Your task to perform on an android device: What's the weather today? Image 0: 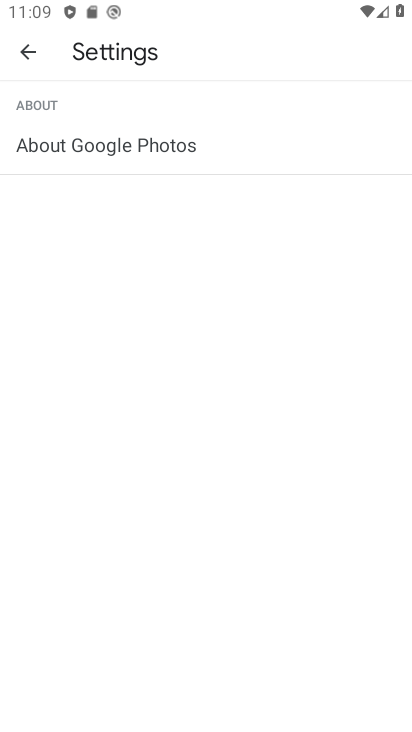
Step 0: press back button
Your task to perform on an android device: What's the weather today? Image 1: 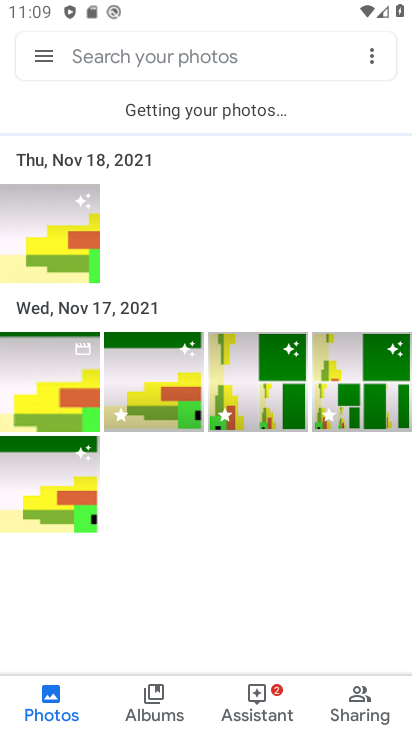
Step 1: press home button
Your task to perform on an android device: What's the weather today? Image 2: 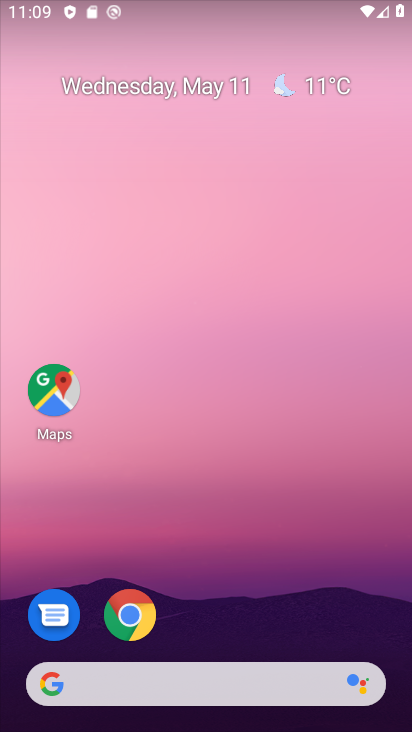
Step 2: click (295, 89)
Your task to perform on an android device: What's the weather today? Image 3: 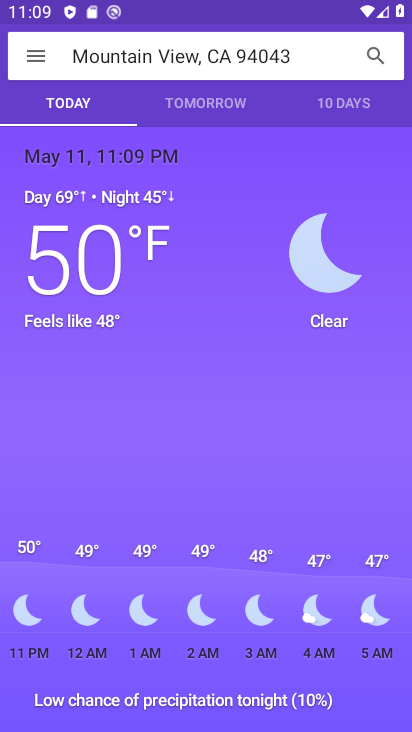
Step 3: task complete